Your task to perform on an android device: change notification settings in the gmail app Image 0: 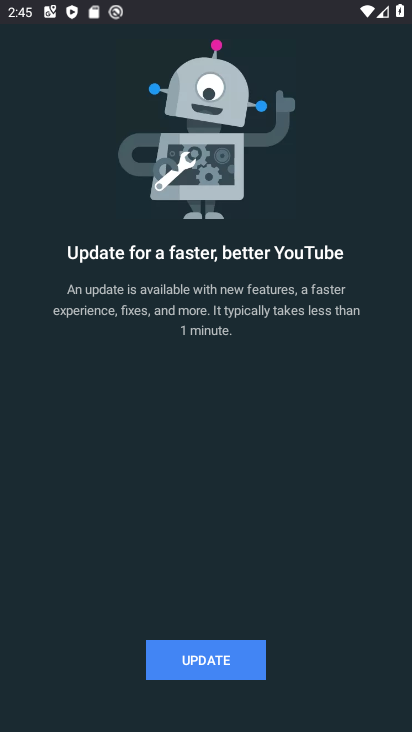
Step 0: press home button
Your task to perform on an android device: change notification settings in the gmail app Image 1: 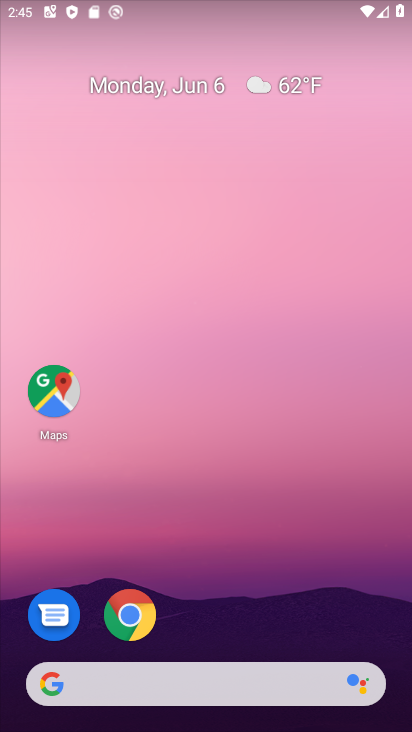
Step 1: drag from (292, 600) to (283, 46)
Your task to perform on an android device: change notification settings in the gmail app Image 2: 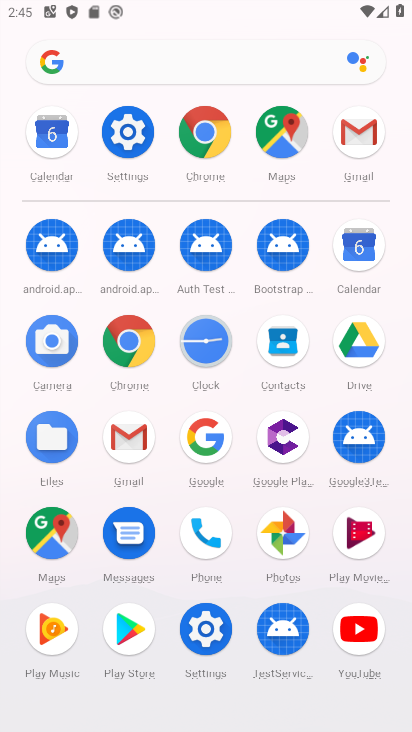
Step 2: click (122, 445)
Your task to perform on an android device: change notification settings in the gmail app Image 3: 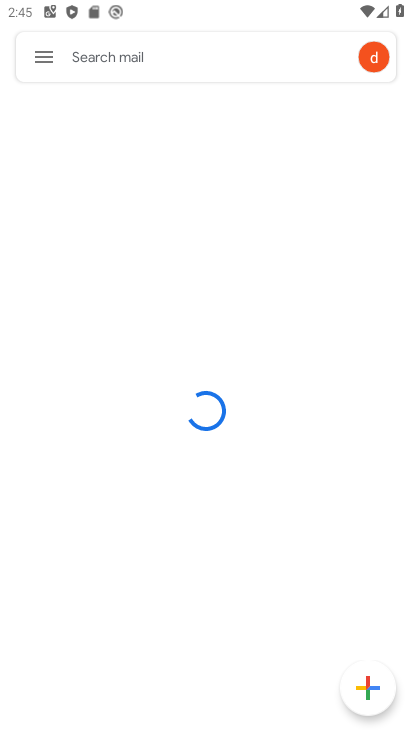
Step 3: click (25, 56)
Your task to perform on an android device: change notification settings in the gmail app Image 4: 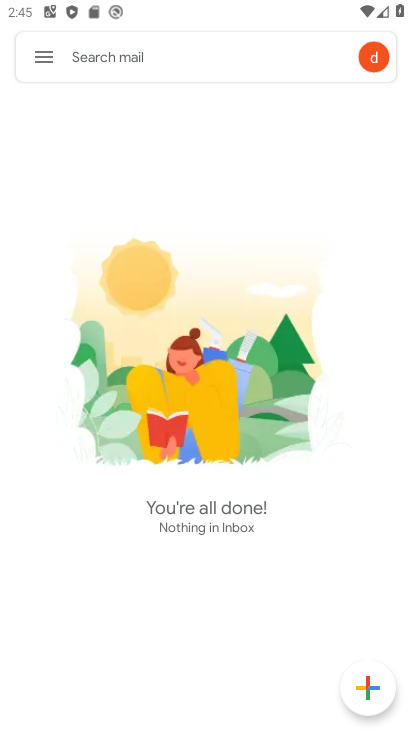
Step 4: click (46, 59)
Your task to perform on an android device: change notification settings in the gmail app Image 5: 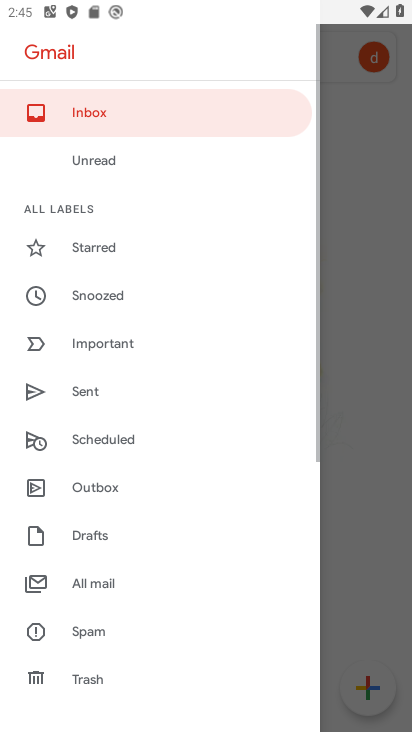
Step 5: drag from (130, 640) to (108, 40)
Your task to perform on an android device: change notification settings in the gmail app Image 6: 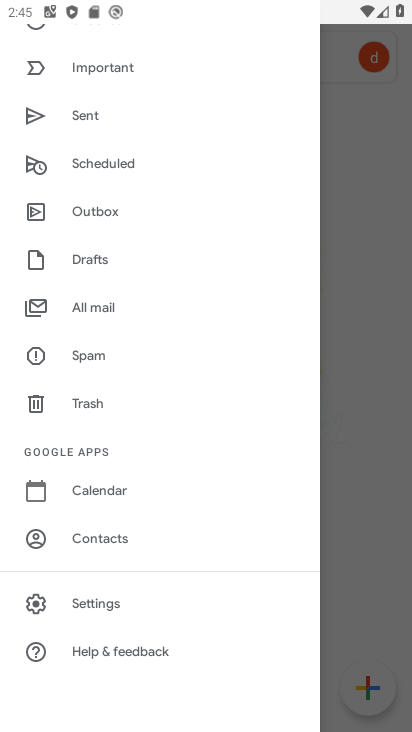
Step 6: click (106, 601)
Your task to perform on an android device: change notification settings in the gmail app Image 7: 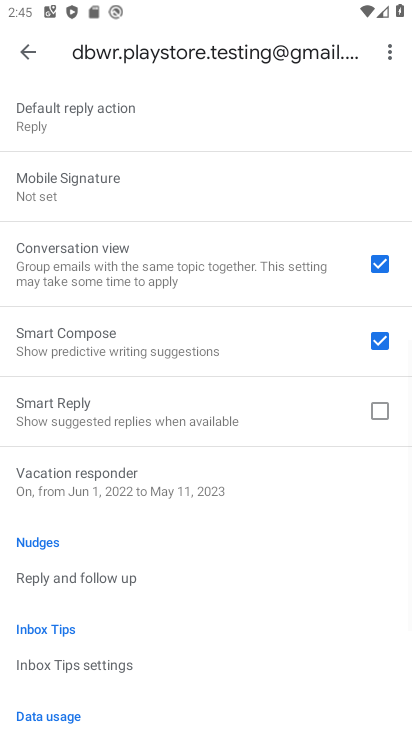
Step 7: drag from (168, 407) to (165, 307)
Your task to perform on an android device: change notification settings in the gmail app Image 8: 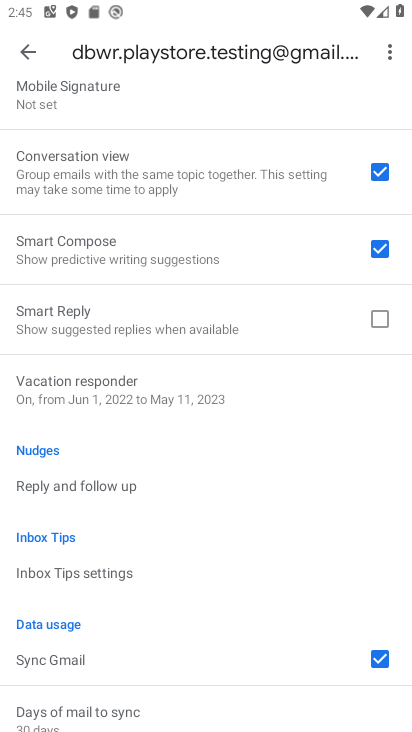
Step 8: drag from (191, 697) to (232, 94)
Your task to perform on an android device: change notification settings in the gmail app Image 9: 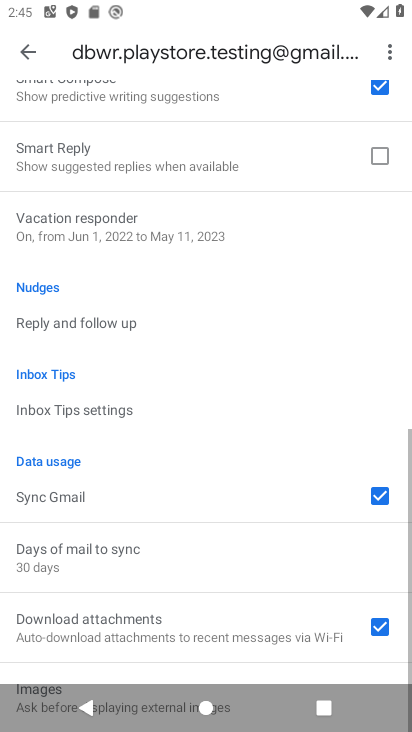
Step 9: drag from (245, 191) to (144, 708)
Your task to perform on an android device: change notification settings in the gmail app Image 10: 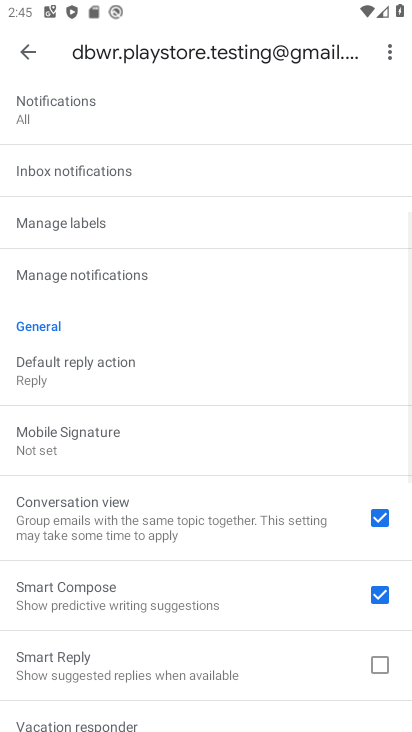
Step 10: click (107, 276)
Your task to perform on an android device: change notification settings in the gmail app Image 11: 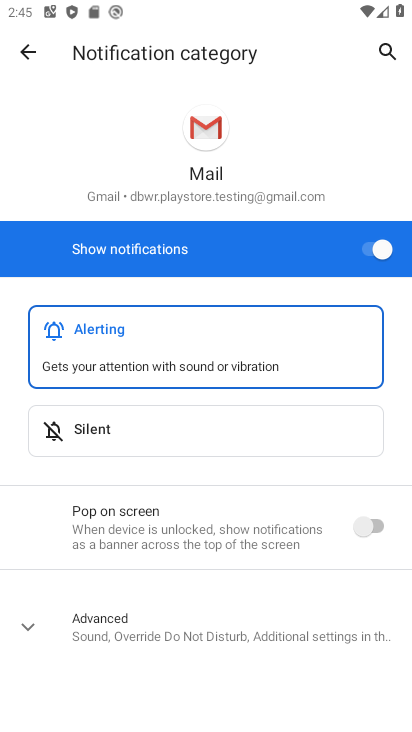
Step 11: click (372, 247)
Your task to perform on an android device: change notification settings in the gmail app Image 12: 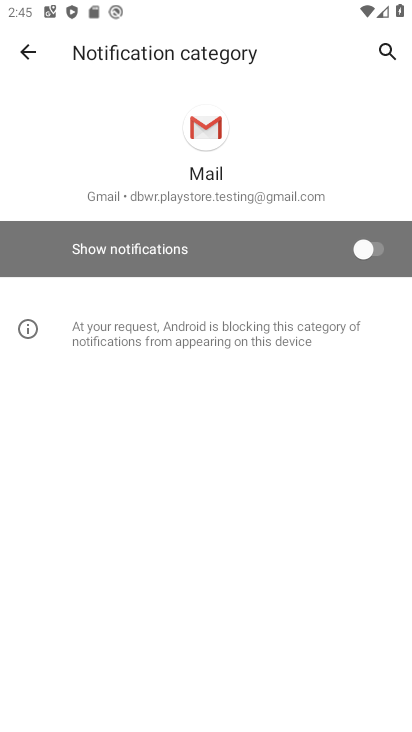
Step 12: task complete